Your task to perform on an android device: turn on notifications settings in the gmail app Image 0: 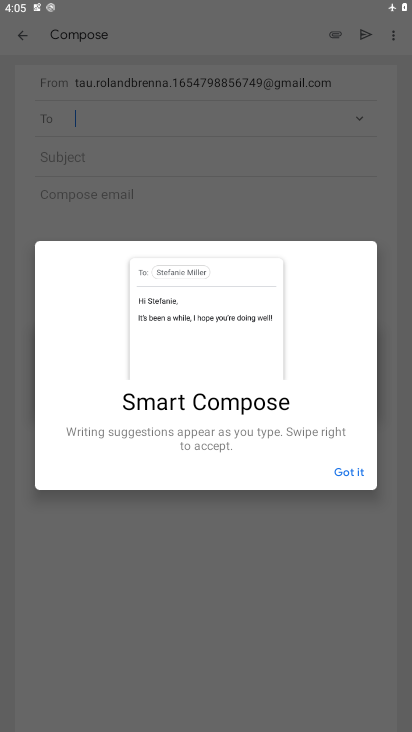
Step 0: press home button
Your task to perform on an android device: turn on notifications settings in the gmail app Image 1: 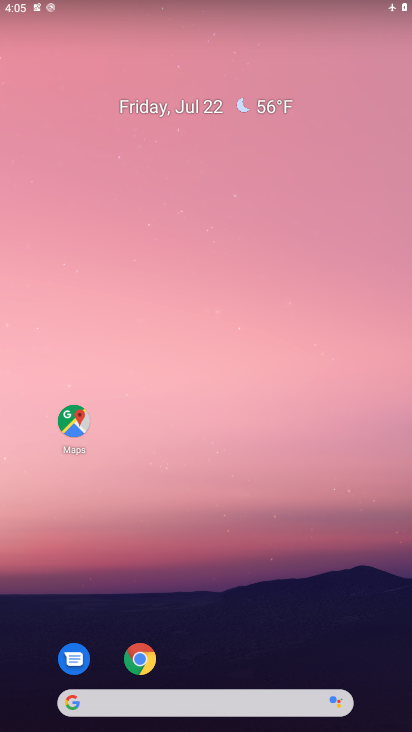
Step 1: drag from (211, 685) to (232, 167)
Your task to perform on an android device: turn on notifications settings in the gmail app Image 2: 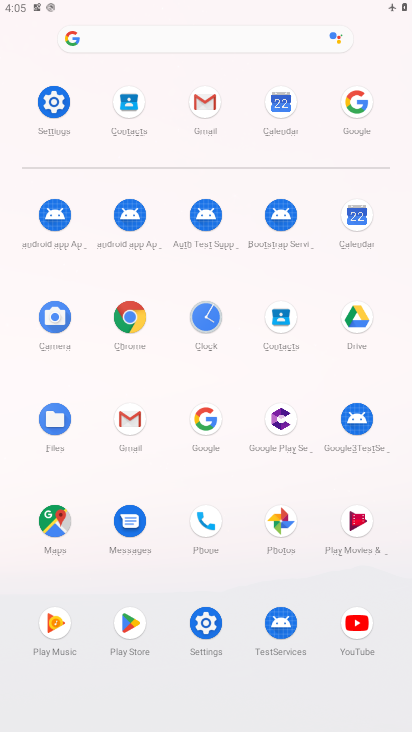
Step 2: click (127, 417)
Your task to perform on an android device: turn on notifications settings in the gmail app Image 3: 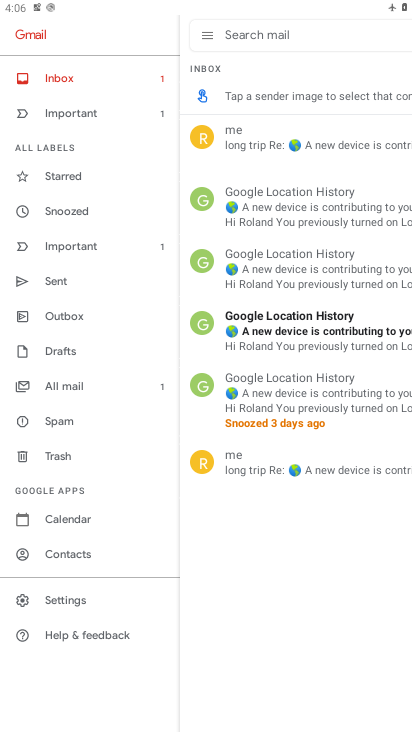
Step 3: click (62, 602)
Your task to perform on an android device: turn on notifications settings in the gmail app Image 4: 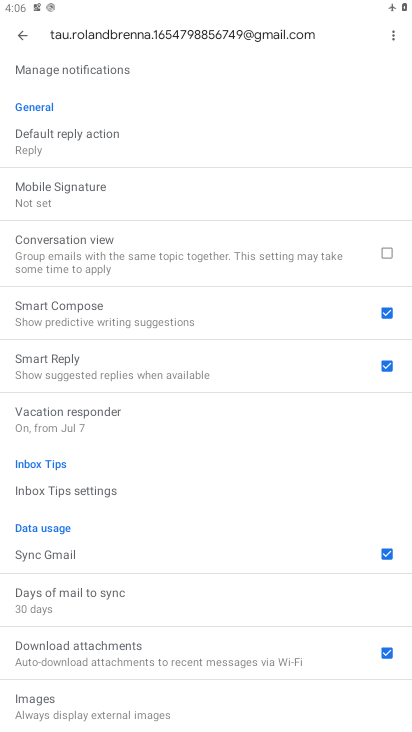
Step 4: click (48, 67)
Your task to perform on an android device: turn on notifications settings in the gmail app Image 5: 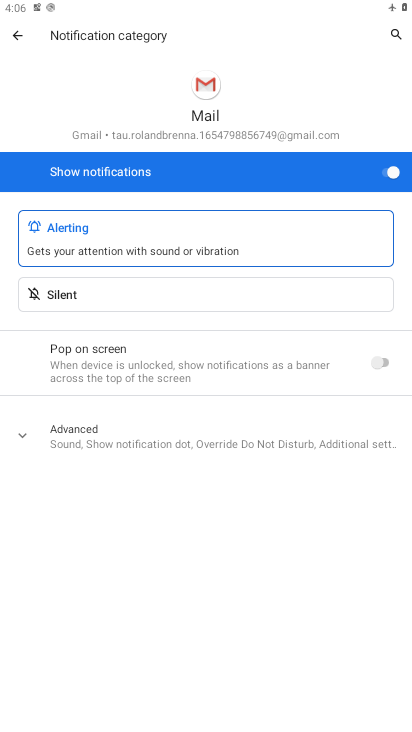
Step 5: task complete